Your task to perform on an android device: Open Google Chrome Image 0: 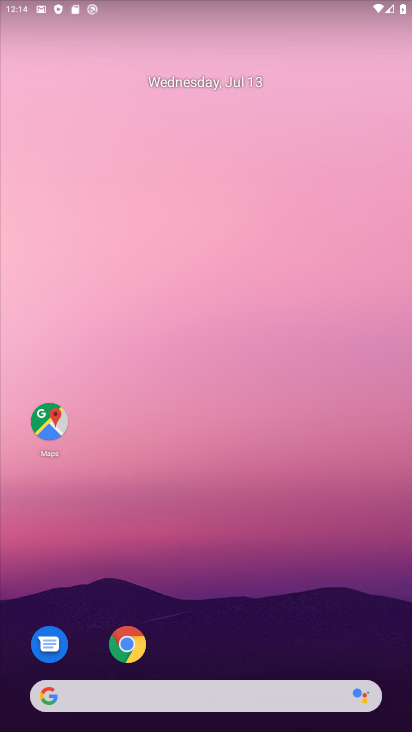
Step 0: click (132, 643)
Your task to perform on an android device: Open Google Chrome Image 1: 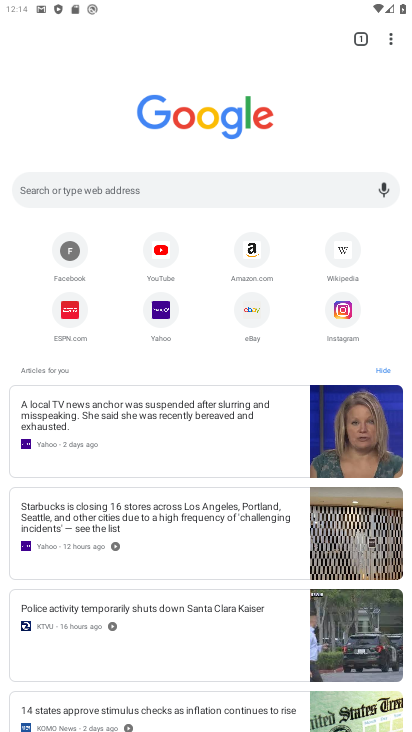
Step 1: task complete